Your task to perform on an android device: Open Google Image 0: 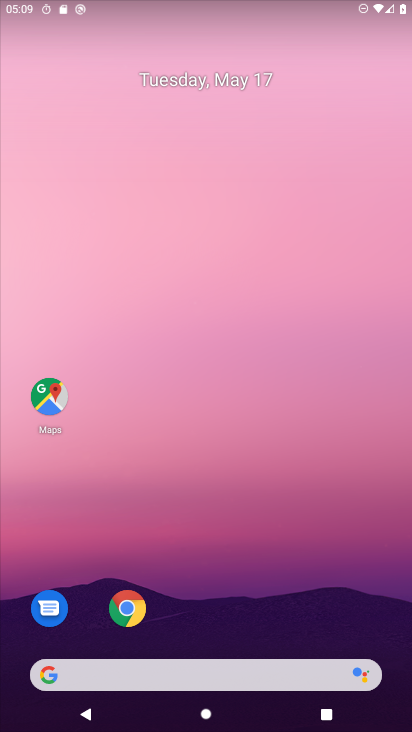
Step 0: drag from (133, 639) to (133, 317)
Your task to perform on an android device: Open Google Image 1: 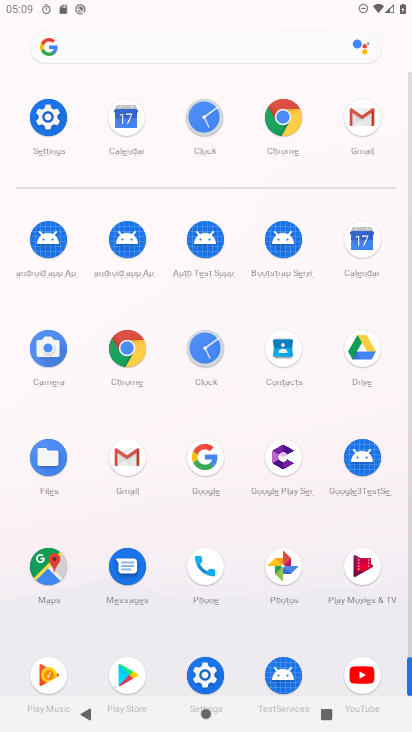
Step 1: click (200, 460)
Your task to perform on an android device: Open Google Image 2: 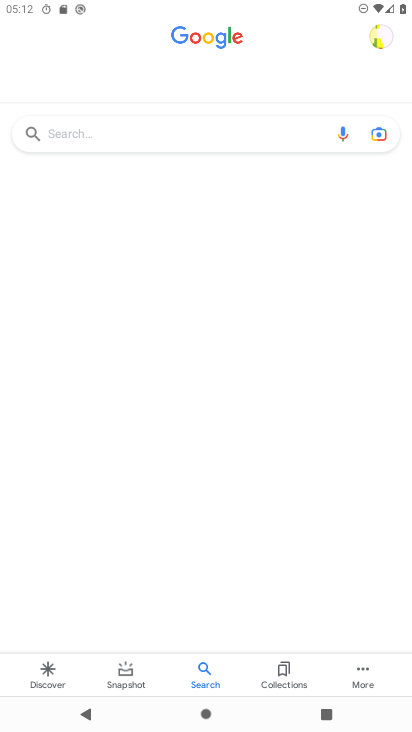
Step 2: task complete